Your task to perform on an android device: Open the Play Movies app and select the watchlist tab. Image 0: 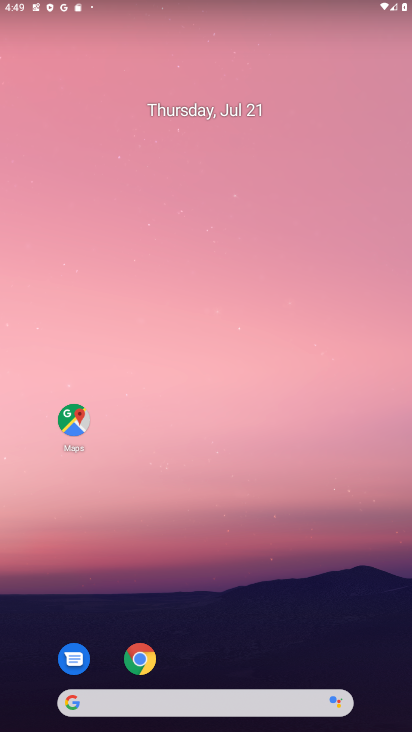
Step 0: drag from (239, 634) to (200, 132)
Your task to perform on an android device: Open the Play Movies app and select the watchlist tab. Image 1: 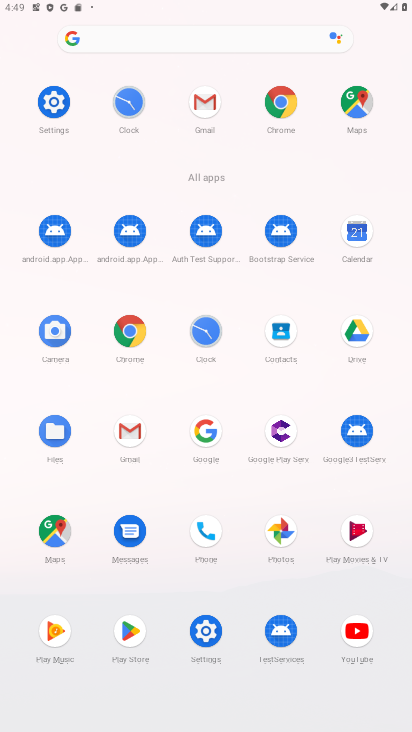
Step 1: click (355, 533)
Your task to perform on an android device: Open the Play Movies app and select the watchlist tab. Image 2: 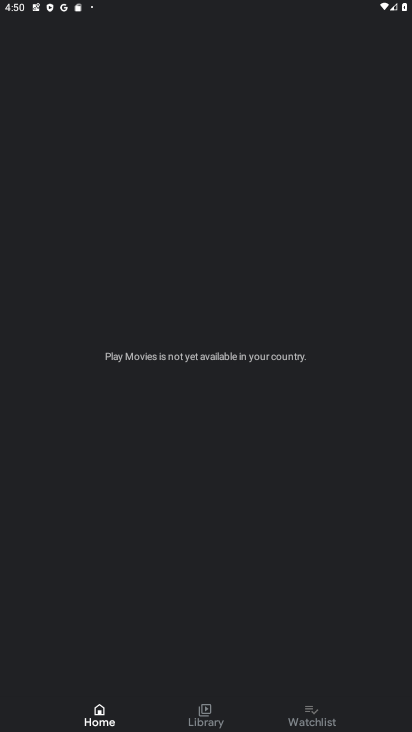
Step 2: click (311, 714)
Your task to perform on an android device: Open the Play Movies app and select the watchlist tab. Image 3: 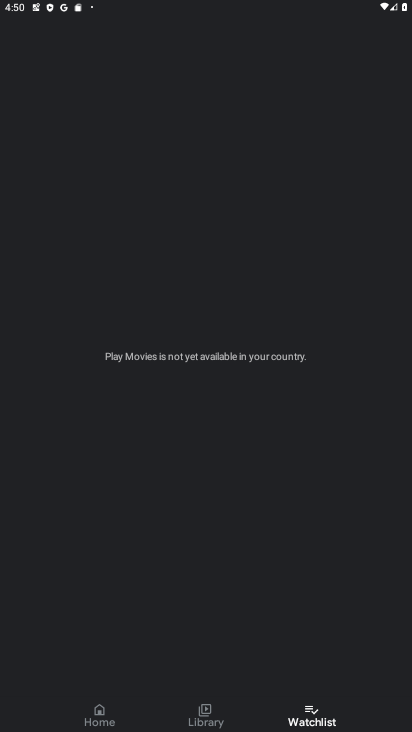
Step 3: task complete